Your task to perform on an android device: Open Google Maps Image 0: 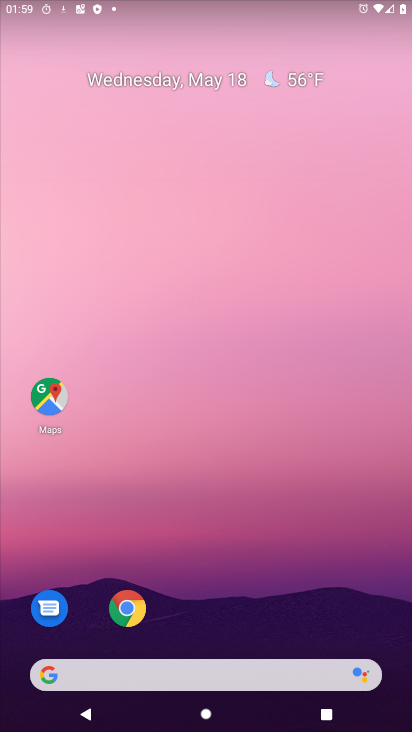
Step 0: drag from (251, 688) to (284, 351)
Your task to perform on an android device: Open Google Maps Image 1: 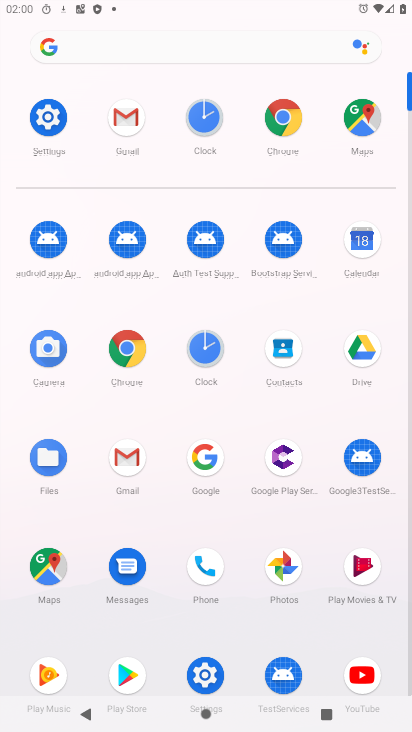
Step 1: click (339, 122)
Your task to perform on an android device: Open Google Maps Image 2: 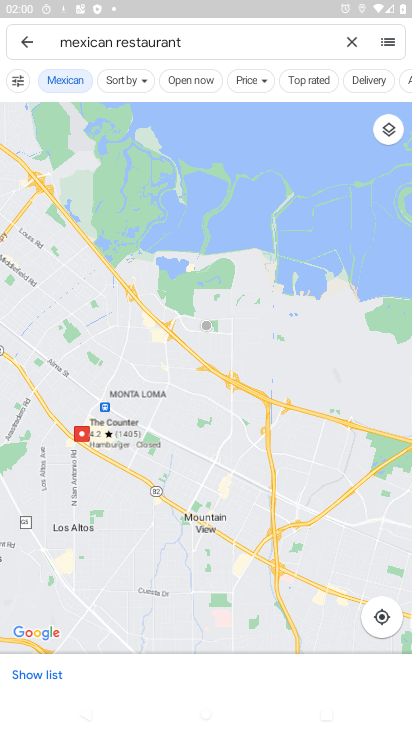
Step 2: click (28, 39)
Your task to perform on an android device: Open Google Maps Image 3: 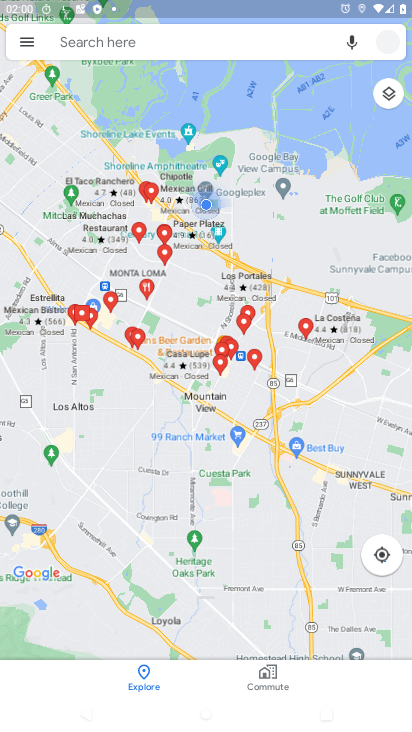
Step 3: click (372, 624)
Your task to perform on an android device: Open Google Maps Image 4: 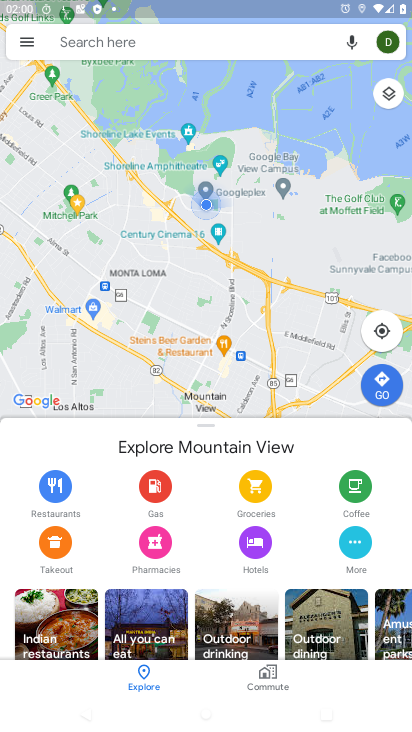
Step 4: task complete